Your task to perform on an android device: Go to Wikipedia Image 0: 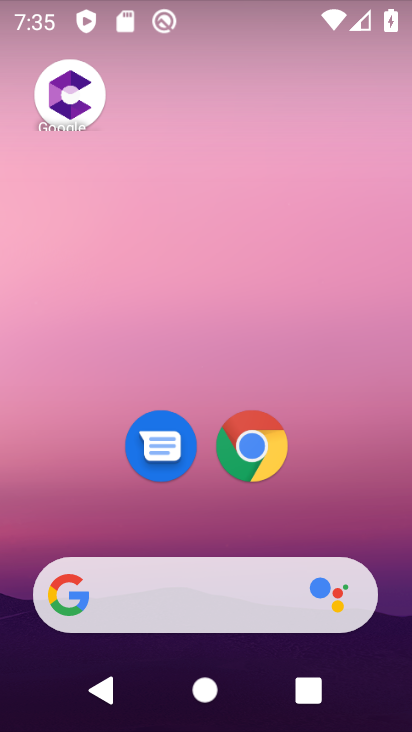
Step 0: drag from (348, 516) to (351, 1)
Your task to perform on an android device: Go to Wikipedia Image 1: 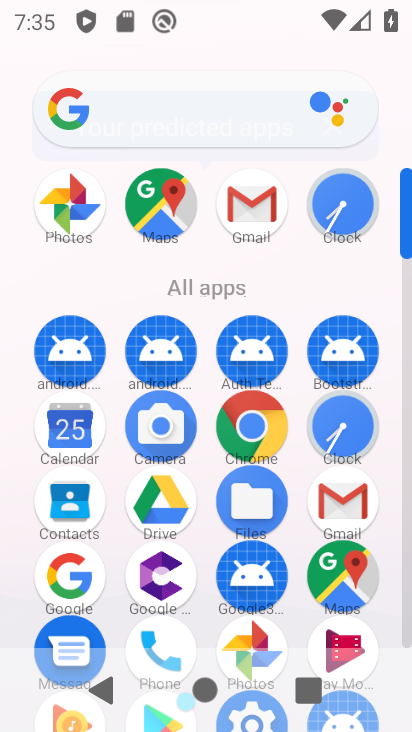
Step 1: click (270, 442)
Your task to perform on an android device: Go to Wikipedia Image 2: 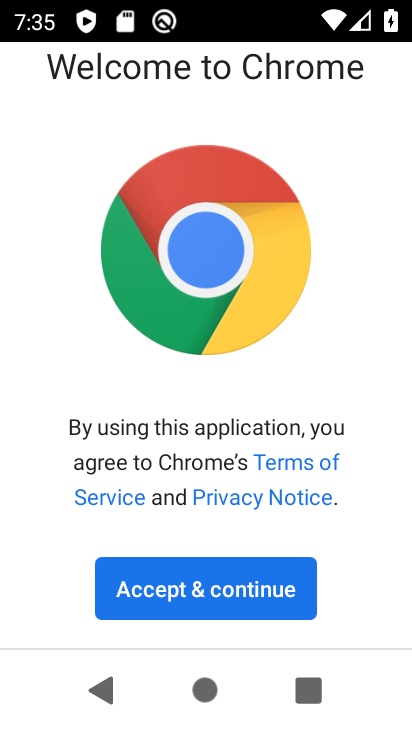
Step 2: click (175, 580)
Your task to perform on an android device: Go to Wikipedia Image 3: 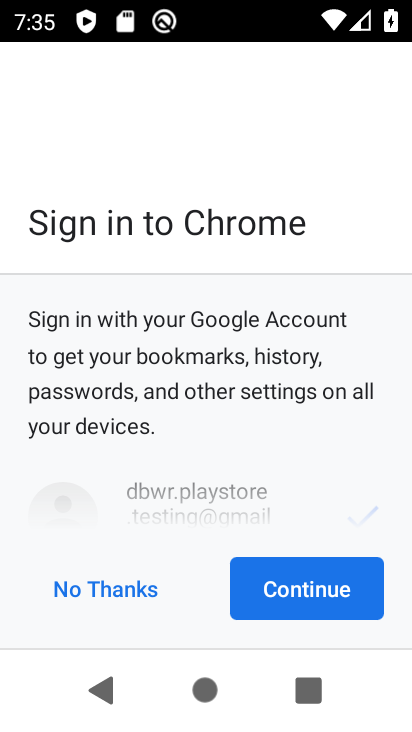
Step 3: click (115, 590)
Your task to perform on an android device: Go to Wikipedia Image 4: 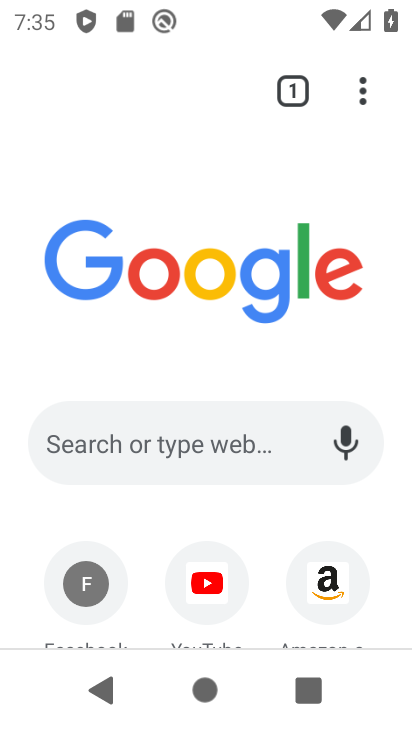
Step 4: drag from (236, 446) to (273, 122)
Your task to perform on an android device: Go to Wikipedia Image 5: 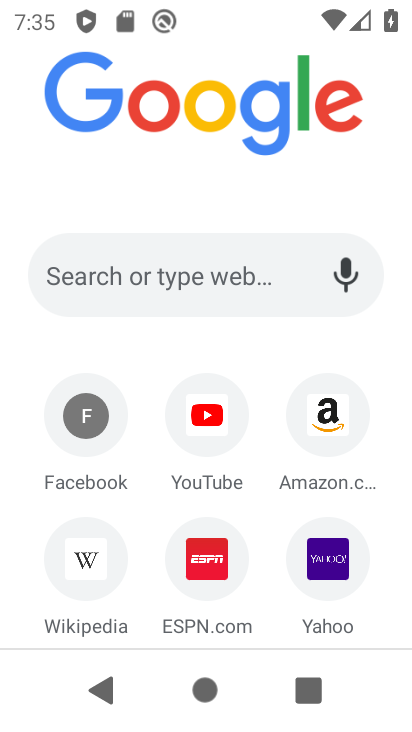
Step 5: click (95, 567)
Your task to perform on an android device: Go to Wikipedia Image 6: 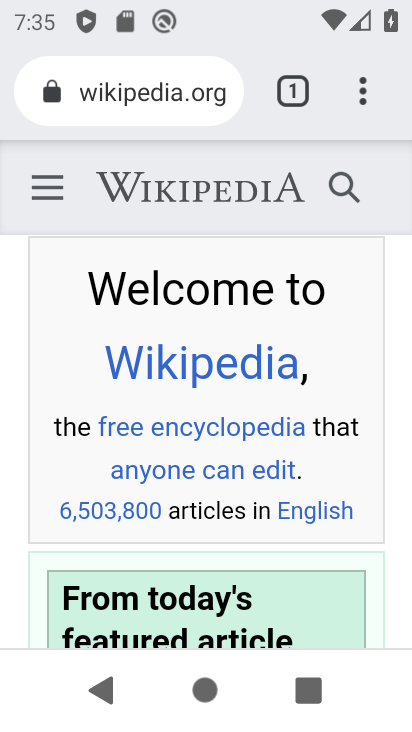
Step 6: task complete